Your task to perform on an android device: turn on showing notifications on the lock screen Image 0: 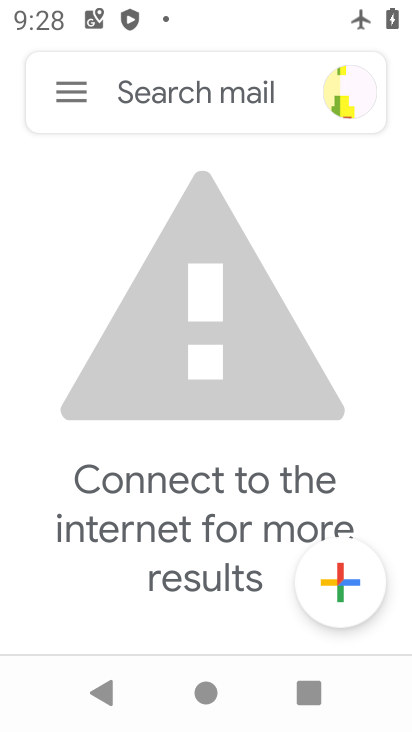
Step 0: press home button
Your task to perform on an android device: turn on showing notifications on the lock screen Image 1: 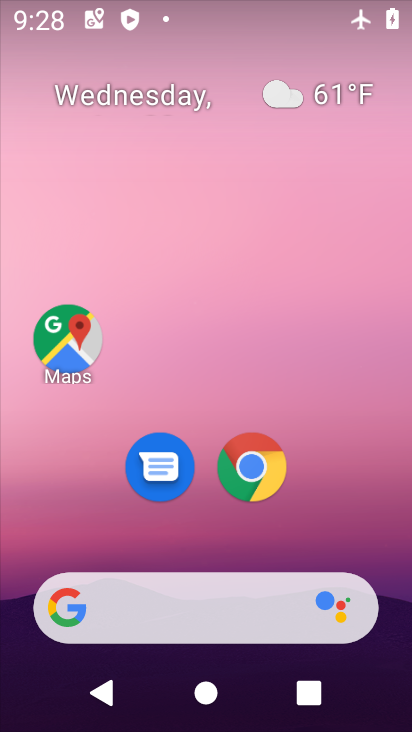
Step 1: drag from (226, 695) to (197, 52)
Your task to perform on an android device: turn on showing notifications on the lock screen Image 2: 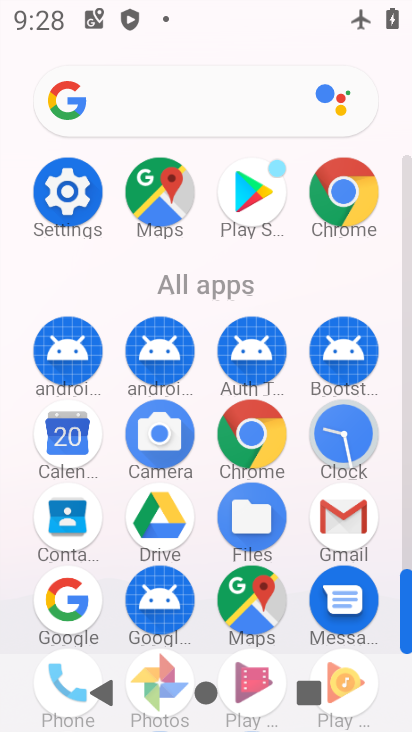
Step 2: click (61, 197)
Your task to perform on an android device: turn on showing notifications on the lock screen Image 3: 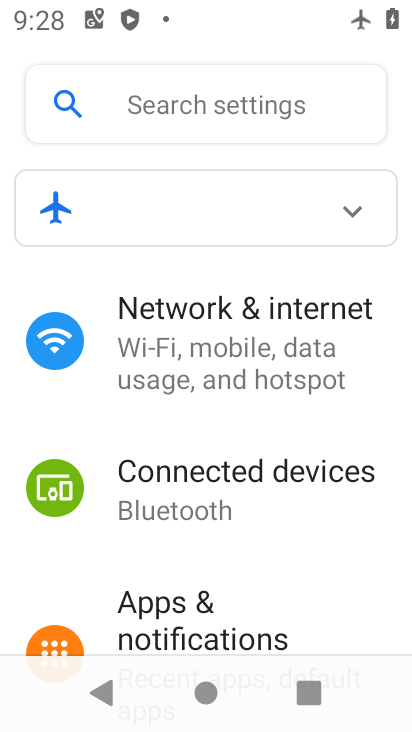
Step 3: click (194, 619)
Your task to perform on an android device: turn on showing notifications on the lock screen Image 4: 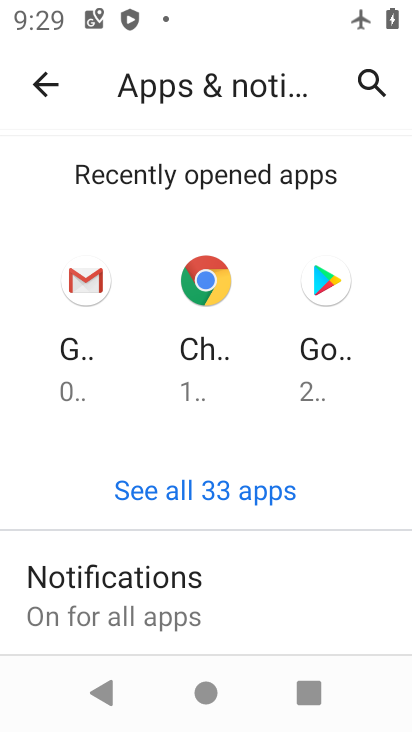
Step 4: click (154, 605)
Your task to perform on an android device: turn on showing notifications on the lock screen Image 5: 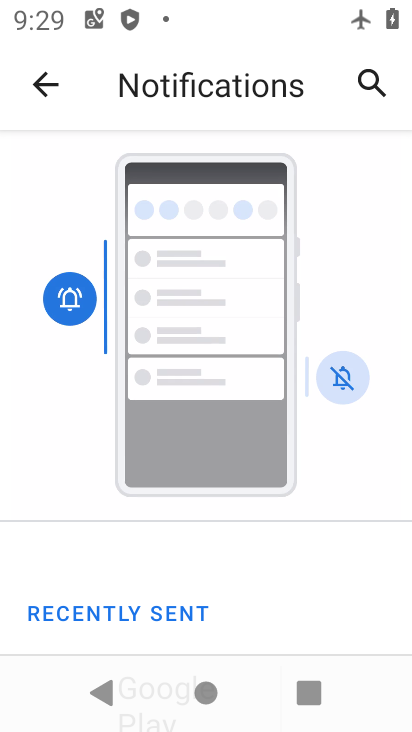
Step 5: drag from (261, 616) to (241, 297)
Your task to perform on an android device: turn on showing notifications on the lock screen Image 6: 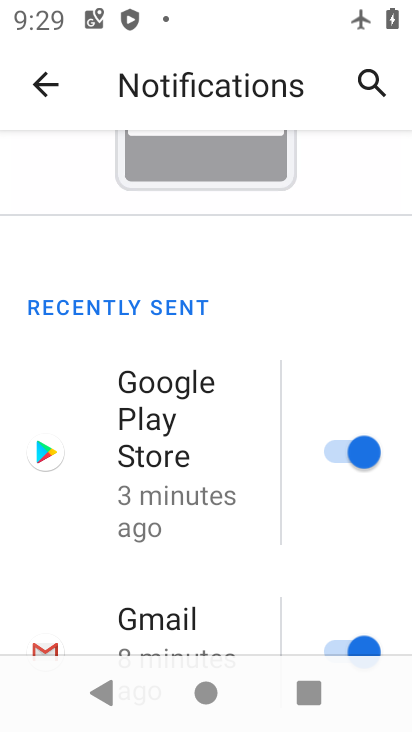
Step 6: drag from (220, 621) to (209, 122)
Your task to perform on an android device: turn on showing notifications on the lock screen Image 7: 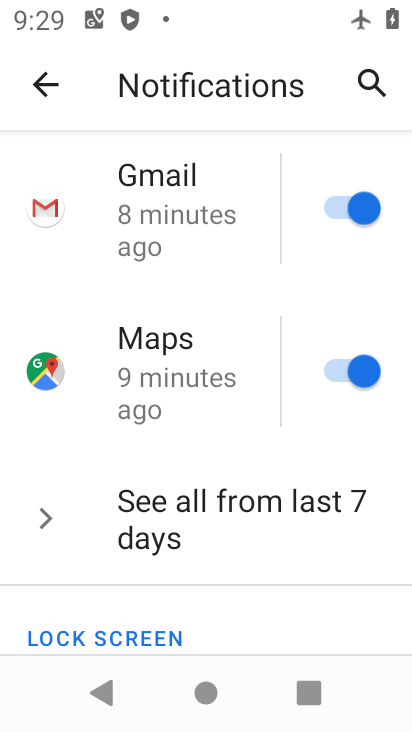
Step 7: drag from (225, 629) to (217, 150)
Your task to perform on an android device: turn on showing notifications on the lock screen Image 8: 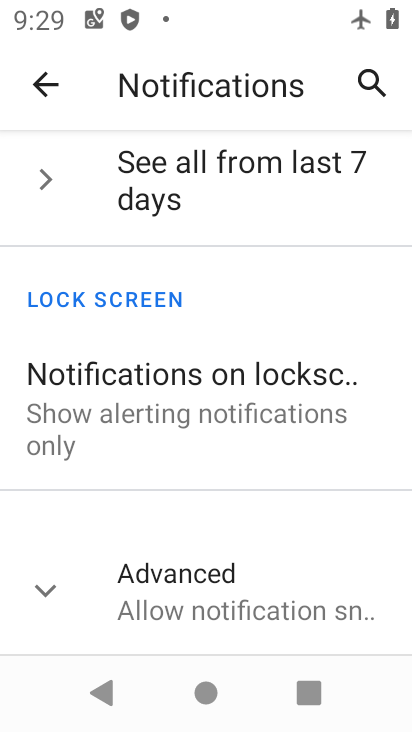
Step 8: click (172, 396)
Your task to perform on an android device: turn on showing notifications on the lock screen Image 9: 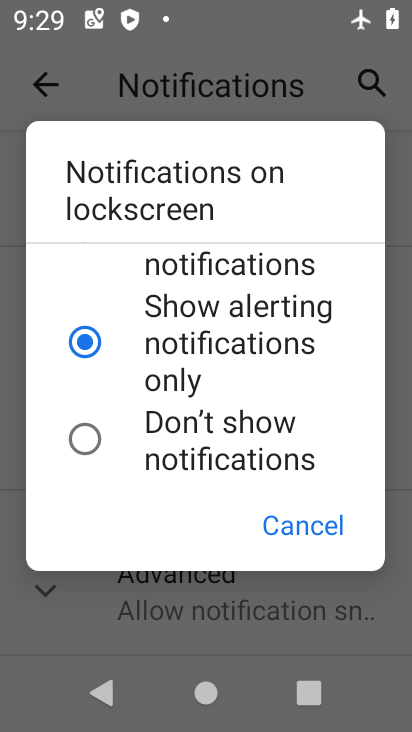
Step 9: click (82, 272)
Your task to perform on an android device: turn on showing notifications on the lock screen Image 10: 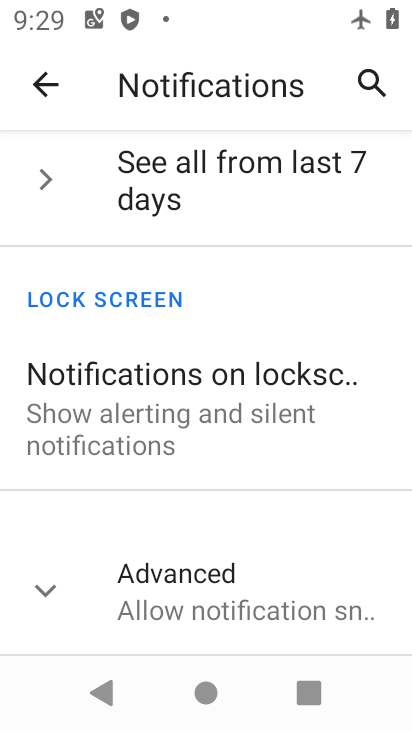
Step 10: task complete